Your task to perform on an android device: open a bookmark in the chrome app Image 0: 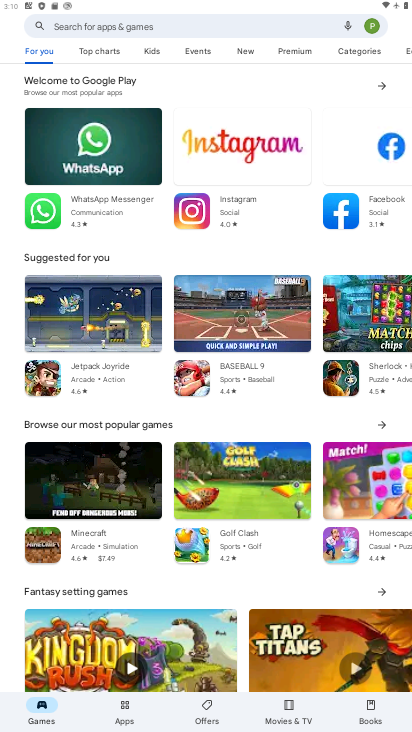
Step 0: press home button
Your task to perform on an android device: open a bookmark in the chrome app Image 1: 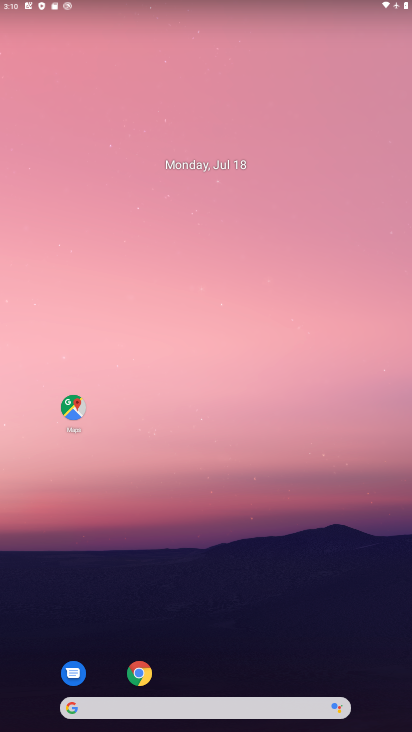
Step 1: drag from (310, 640) to (275, 142)
Your task to perform on an android device: open a bookmark in the chrome app Image 2: 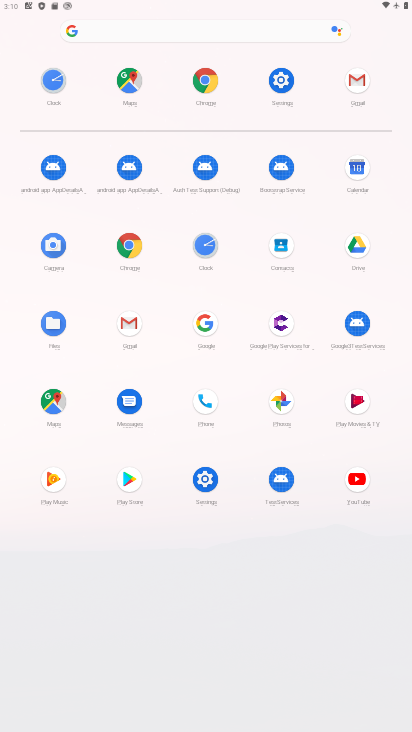
Step 2: click (203, 76)
Your task to perform on an android device: open a bookmark in the chrome app Image 3: 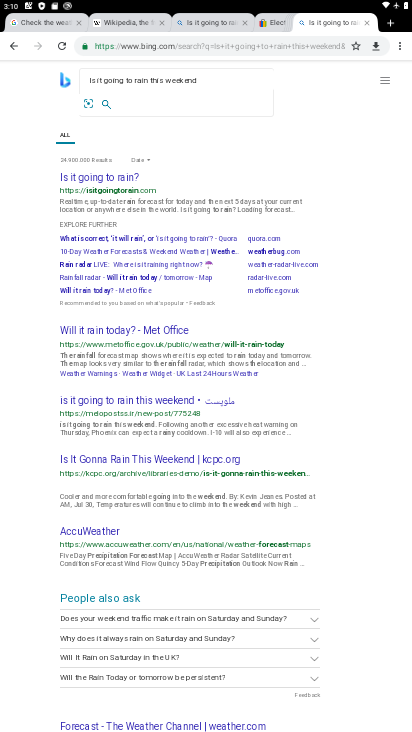
Step 3: click (403, 37)
Your task to perform on an android device: open a bookmark in the chrome app Image 4: 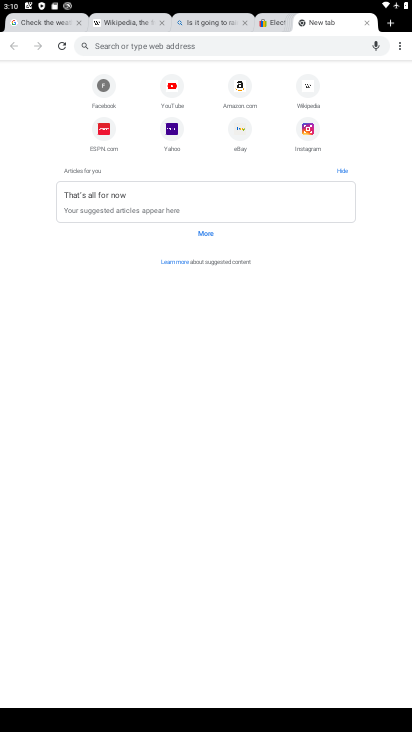
Step 4: click (395, 56)
Your task to perform on an android device: open a bookmark in the chrome app Image 5: 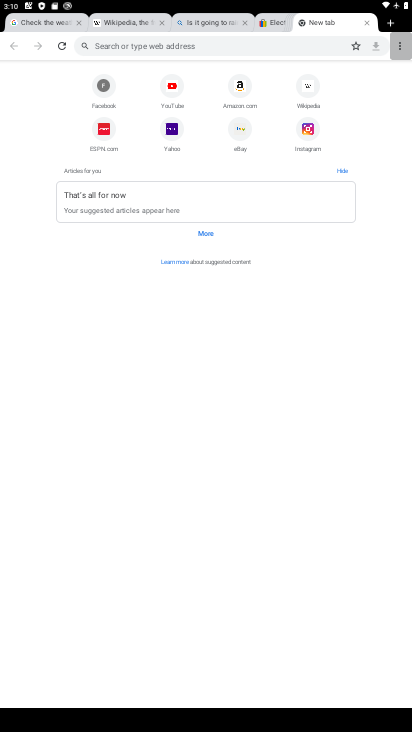
Step 5: click (401, 56)
Your task to perform on an android device: open a bookmark in the chrome app Image 6: 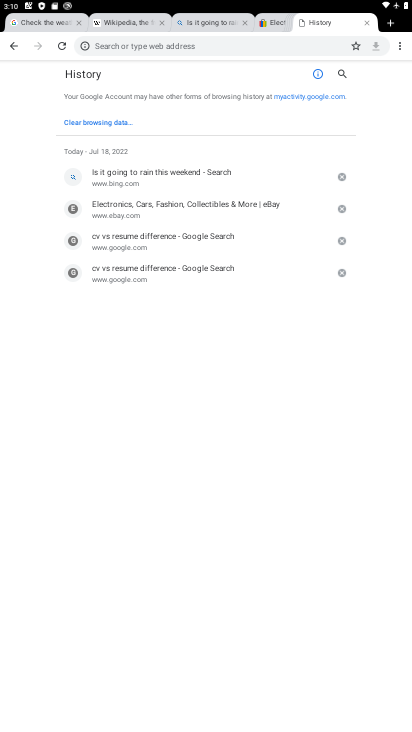
Step 6: click (401, 40)
Your task to perform on an android device: open a bookmark in the chrome app Image 7: 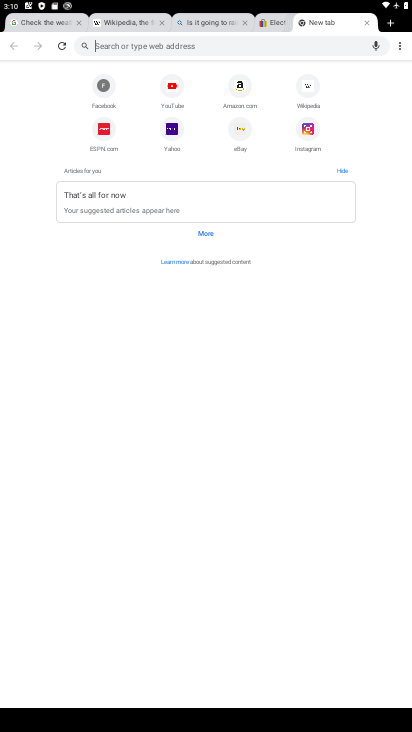
Step 7: click (401, 40)
Your task to perform on an android device: open a bookmark in the chrome app Image 8: 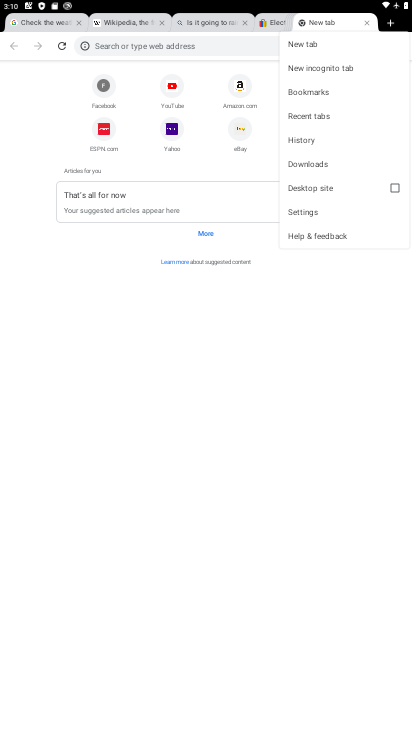
Step 8: click (337, 88)
Your task to perform on an android device: open a bookmark in the chrome app Image 9: 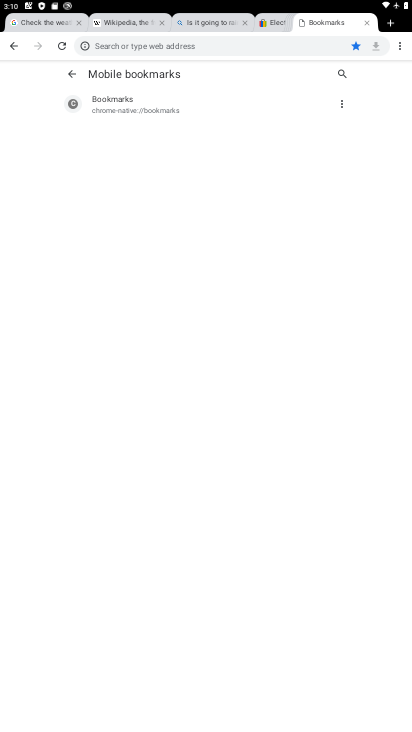
Step 9: task complete